Your task to perform on an android device: Open Yahoo.com Image 0: 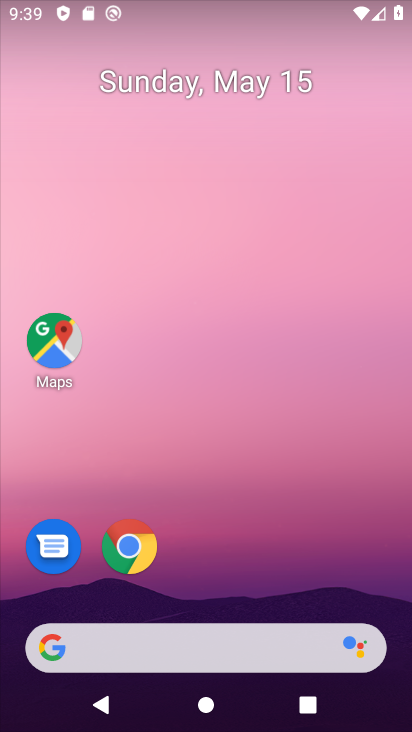
Step 0: click (132, 540)
Your task to perform on an android device: Open Yahoo.com Image 1: 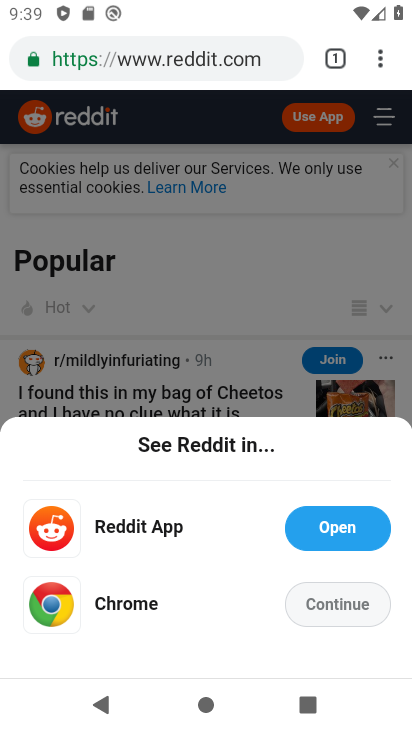
Step 1: click (157, 63)
Your task to perform on an android device: Open Yahoo.com Image 2: 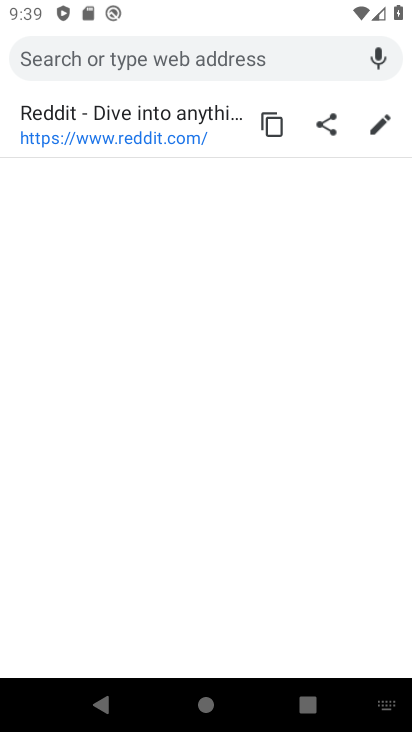
Step 2: type "yahoo.com"
Your task to perform on an android device: Open Yahoo.com Image 3: 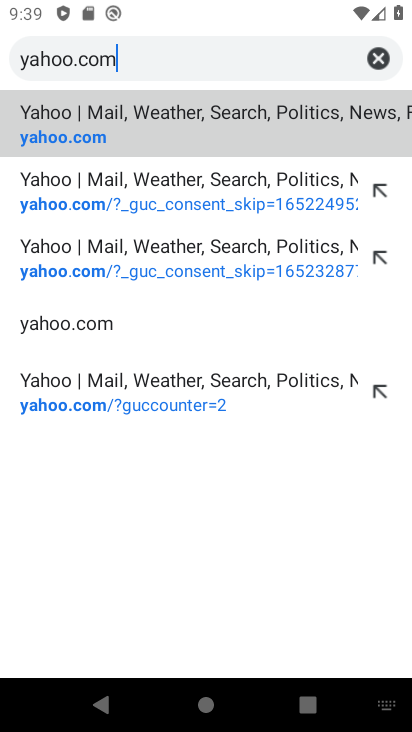
Step 3: click (73, 141)
Your task to perform on an android device: Open Yahoo.com Image 4: 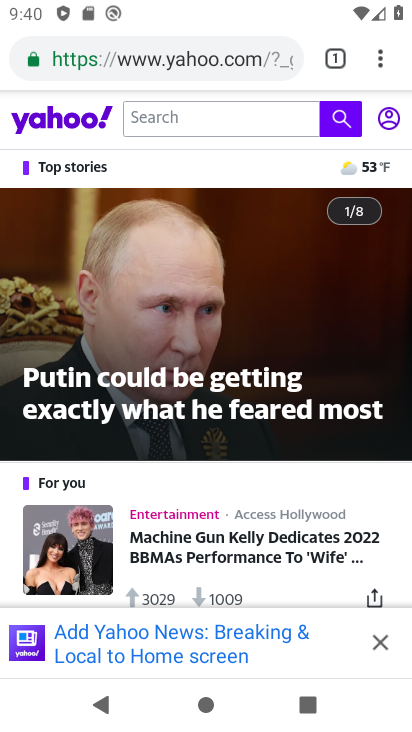
Step 4: task complete